Your task to perform on an android device: allow notifications from all sites in the chrome app Image 0: 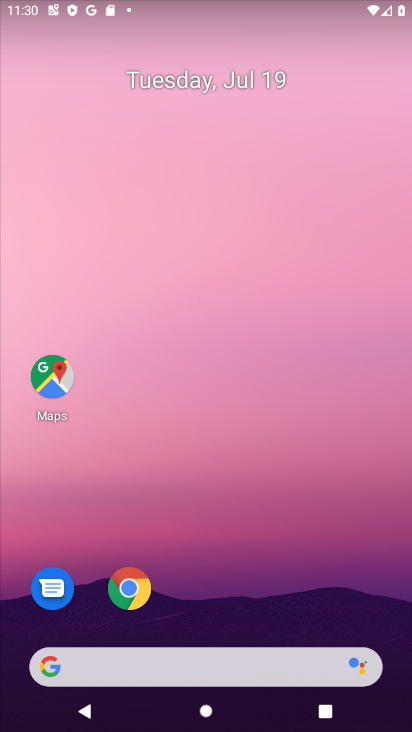
Step 0: drag from (225, 725) to (218, 222)
Your task to perform on an android device: allow notifications from all sites in the chrome app Image 1: 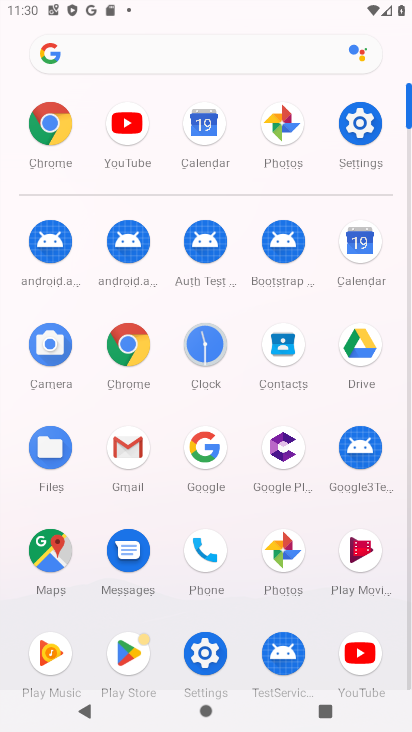
Step 1: click (127, 342)
Your task to perform on an android device: allow notifications from all sites in the chrome app Image 2: 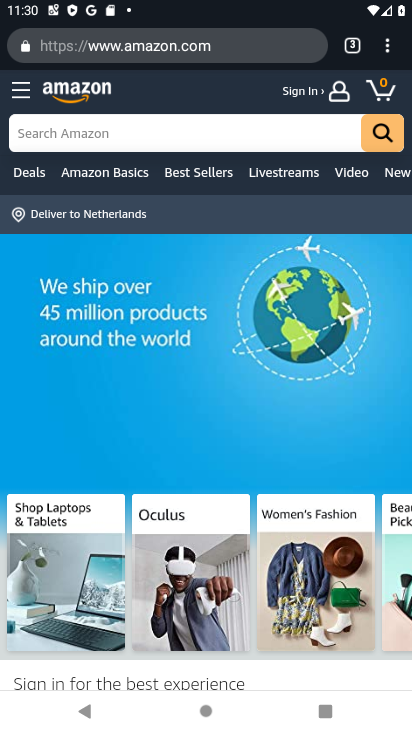
Step 2: click (388, 49)
Your task to perform on an android device: allow notifications from all sites in the chrome app Image 3: 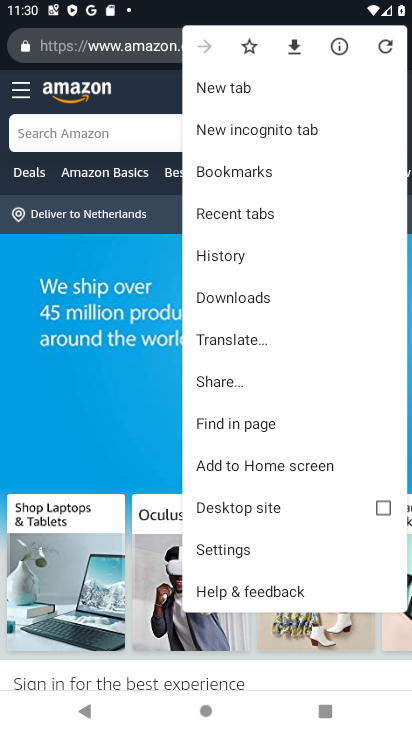
Step 3: click (217, 546)
Your task to perform on an android device: allow notifications from all sites in the chrome app Image 4: 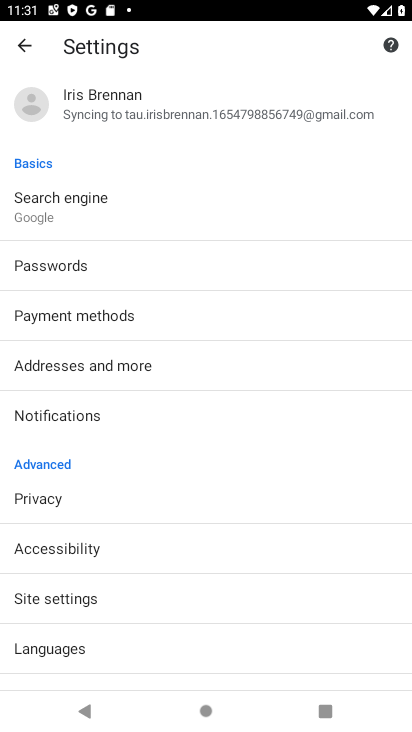
Step 4: click (35, 597)
Your task to perform on an android device: allow notifications from all sites in the chrome app Image 5: 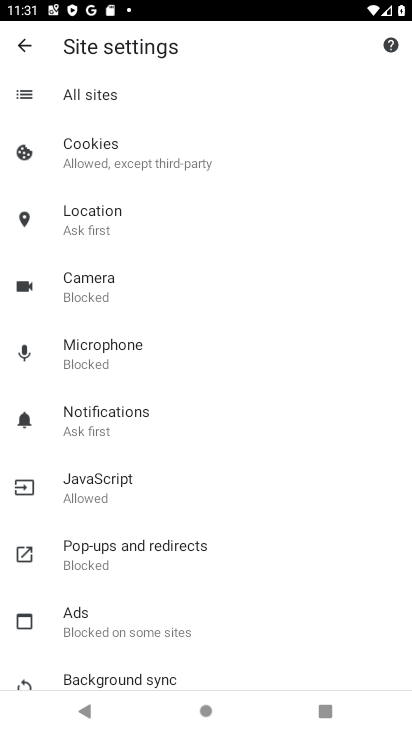
Step 5: click (77, 417)
Your task to perform on an android device: allow notifications from all sites in the chrome app Image 6: 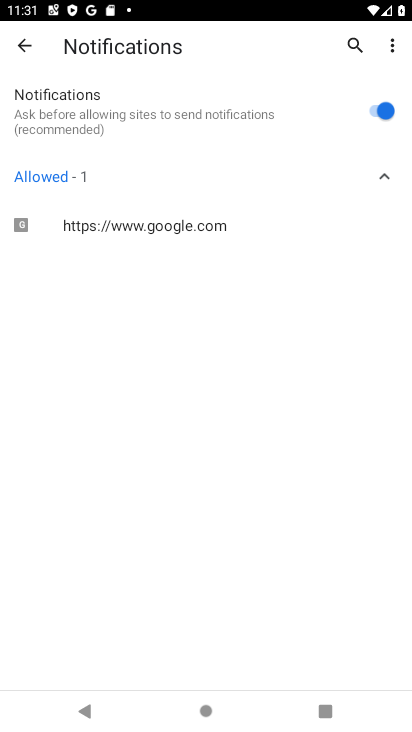
Step 6: task complete